Your task to perform on an android device: see creations saved in the google photos Image 0: 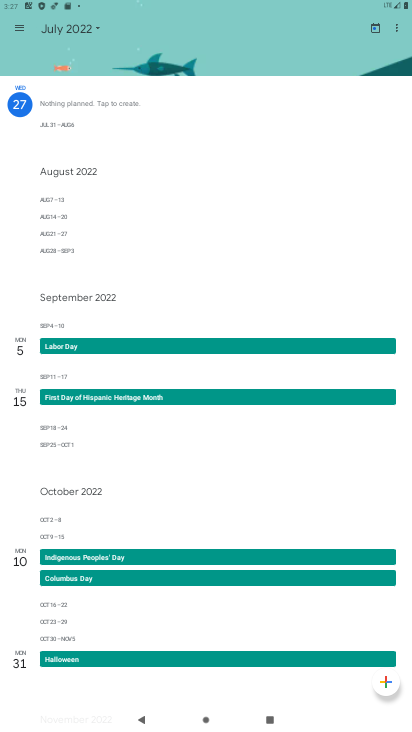
Step 0: press home button
Your task to perform on an android device: see creations saved in the google photos Image 1: 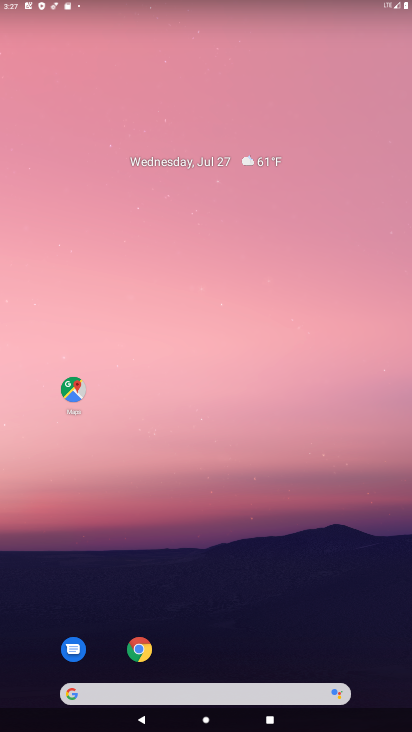
Step 1: drag from (234, 667) to (211, 28)
Your task to perform on an android device: see creations saved in the google photos Image 2: 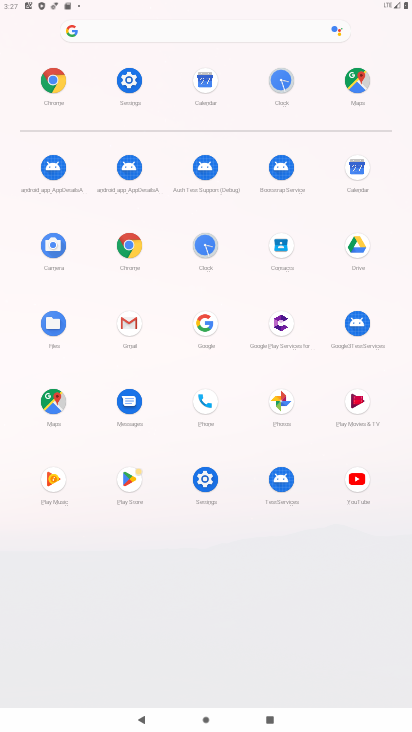
Step 2: click (279, 411)
Your task to perform on an android device: see creations saved in the google photos Image 3: 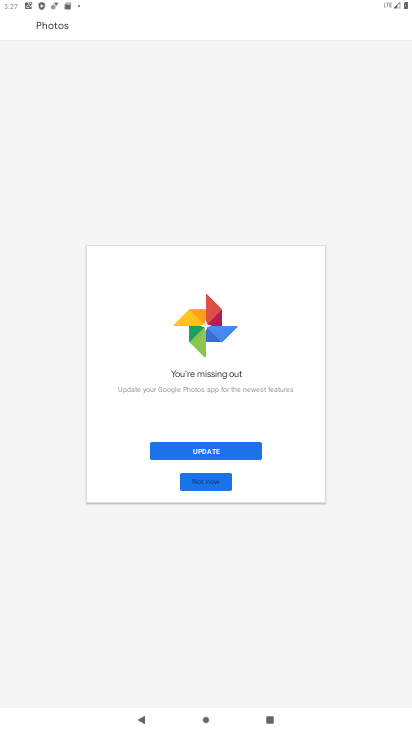
Step 3: click (196, 449)
Your task to perform on an android device: see creations saved in the google photos Image 4: 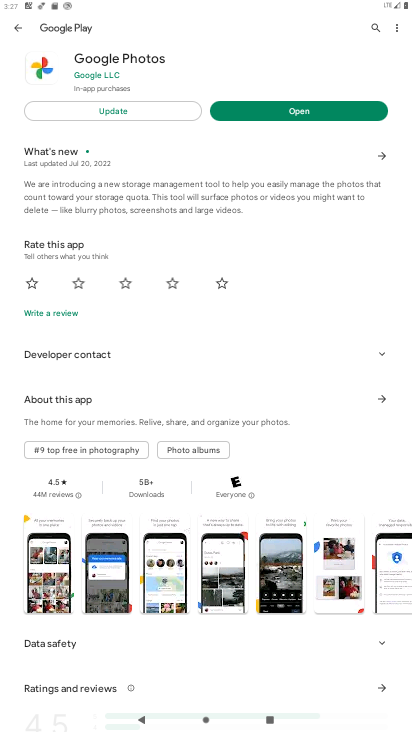
Step 4: click (112, 109)
Your task to perform on an android device: see creations saved in the google photos Image 5: 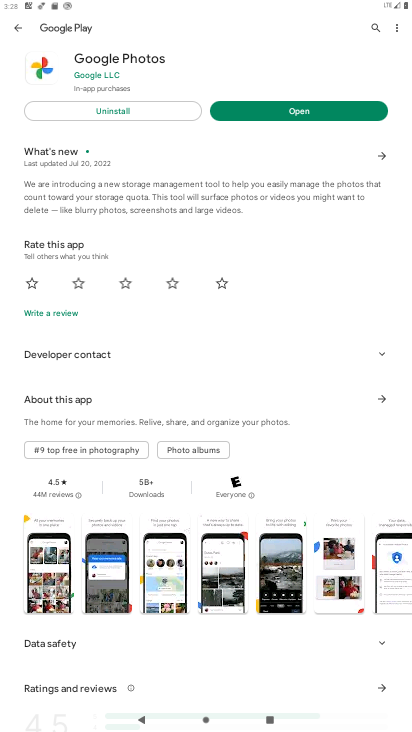
Step 5: click (278, 102)
Your task to perform on an android device: see creations saved in the google photos Image 6: 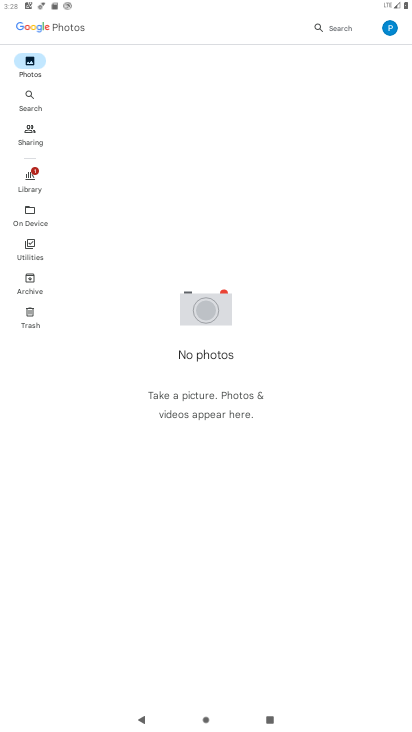
Step 6: click (20, 98)
Your task to perform on an android device: see creations saved in the google photos Image 7: 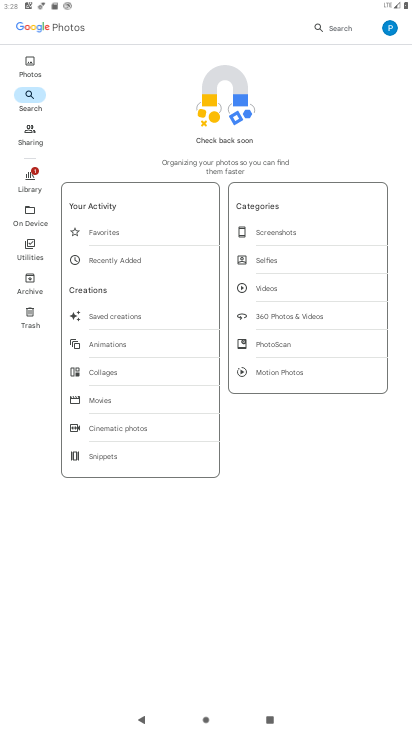
Step 7: click (332, 29)
Your task to perform on an android device: see creations saved in the google photos Image 8: 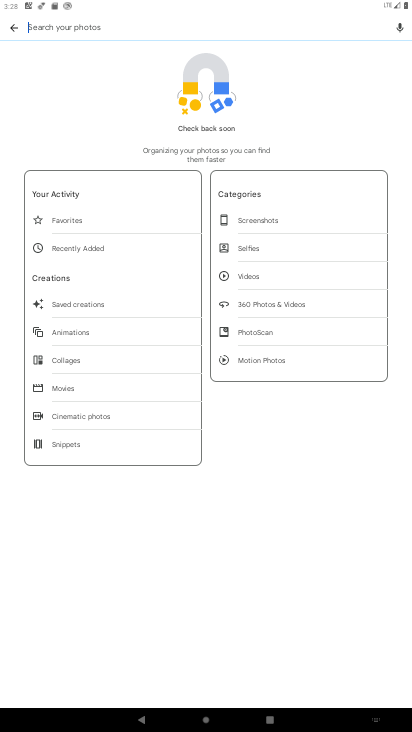
Step 8: click (107, 305)
Your task to perform on an android device: see creations saved in the google photos Image 9: 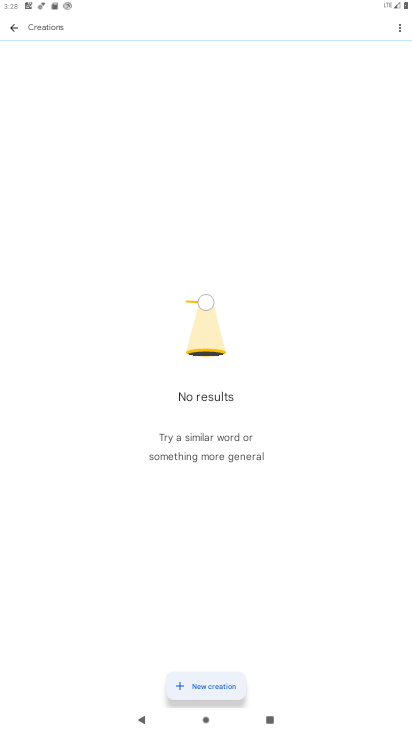
Step 9: task complete